Your task to perform on an android device: turn on javascript in the chrome app Image 0: 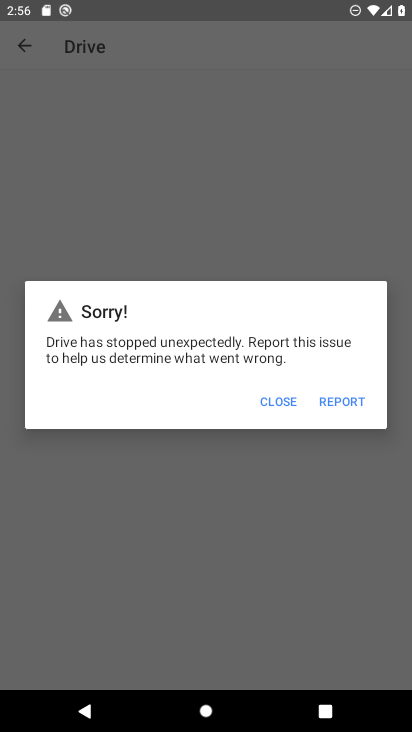
Step 0: press home button
Your task to perform on an android device: turn on javascript in the chrome app Image 1: 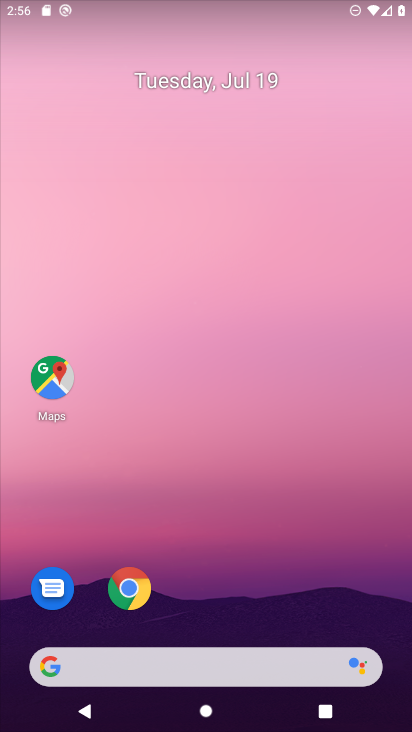
Step 1: click (133, 587)
Your task to perform on an android device: turn on javascript in the chrome app Image 2: 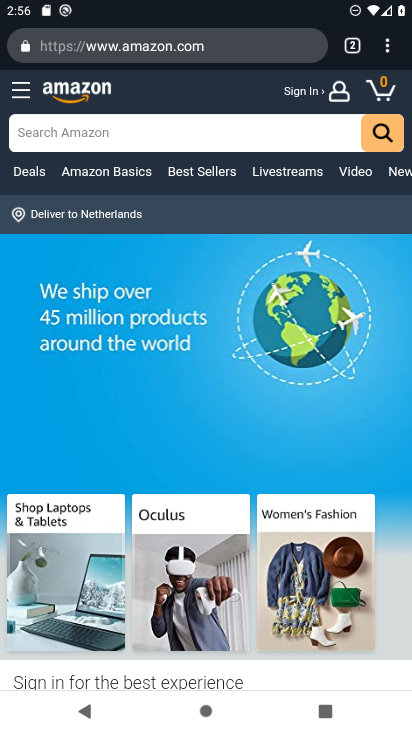
Step 2: click (385, 51)
Your task to perform on an android device: turn on javascript in the chrome app Image 3: 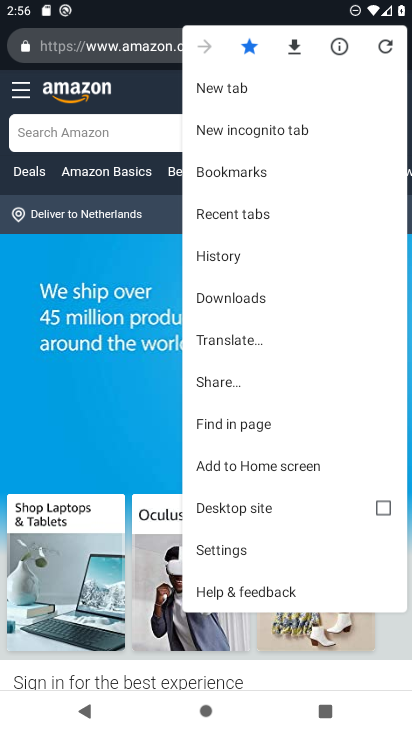
Step 3: click (221, 551)
Your task to perform on an android device: turn on javascript in the chrome app Image 4: 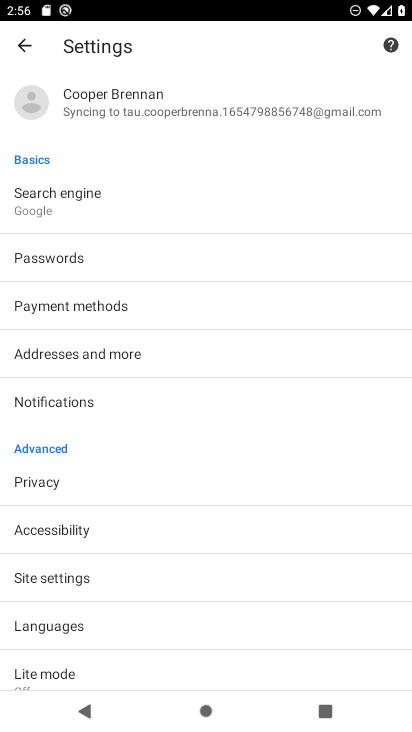
Step 4: click (55, 586)
Your task to perform on an android device: turn on javascript in the chrome app Image 5: 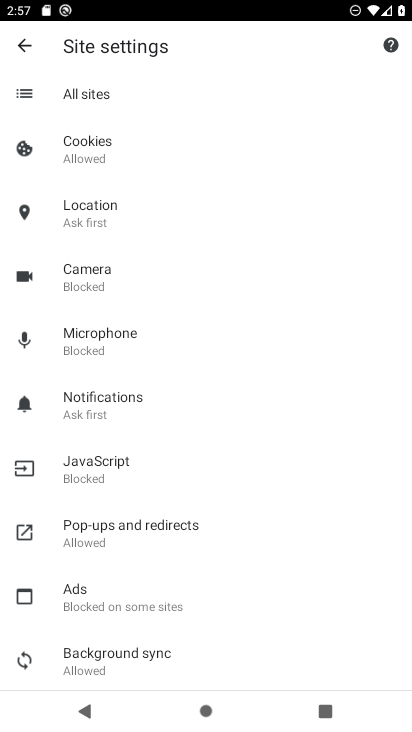
Step 5: click (91, 474)
Your task to perform on an android device: turn on javascript in the chrome app Image 6: 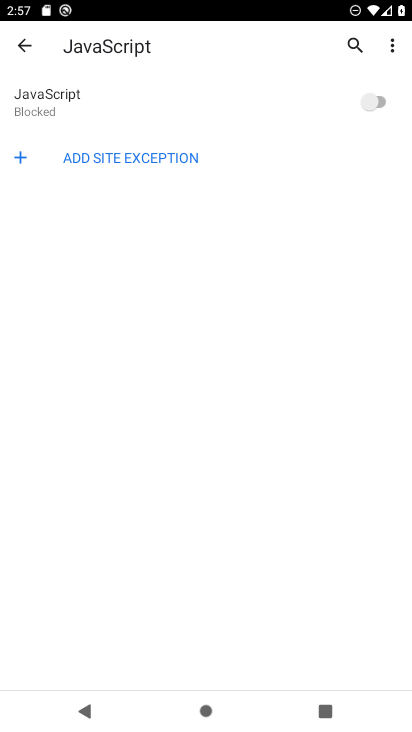
Step 6: click (386, 100)
Your task to perform on an android device: turn on javascript in the chrome app Image 7: 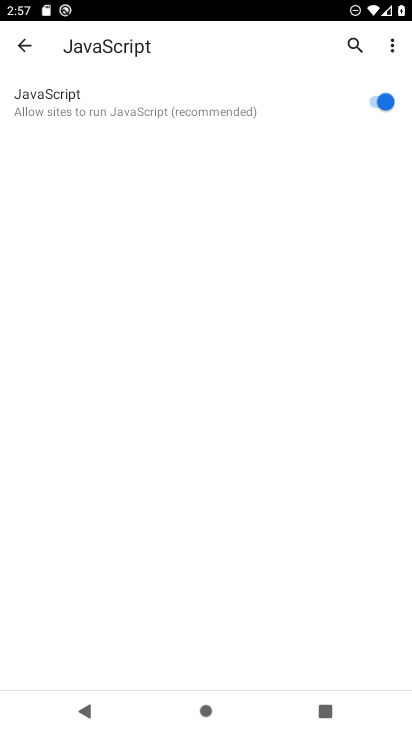
Step 7: task complete